Your task to perform on an android device: Search for vegetarian restaurants on Maps Image 0: 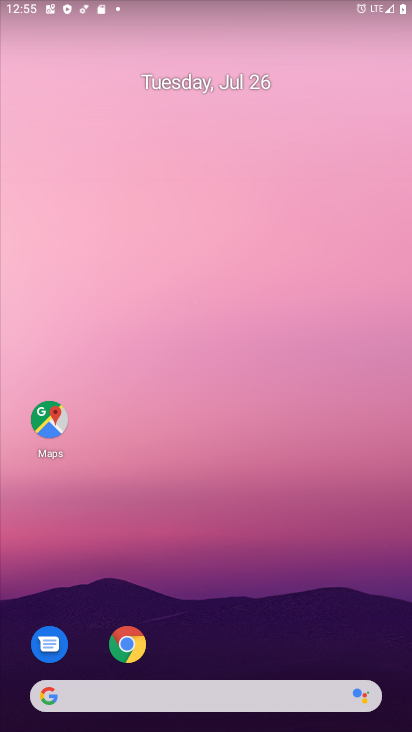
Step 0: click (57, 408)
Your task to perform on an android device: Search for vegetarian restaurants on Maps Image 1: 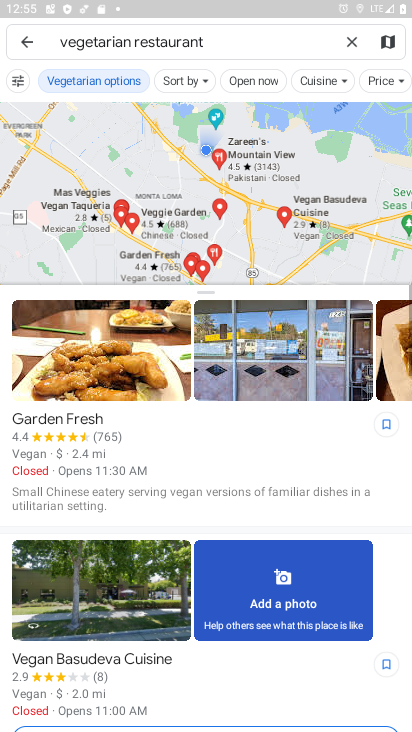
Step 1: task complete